Your task to perform on an android device: change text size in settings app Image 0: 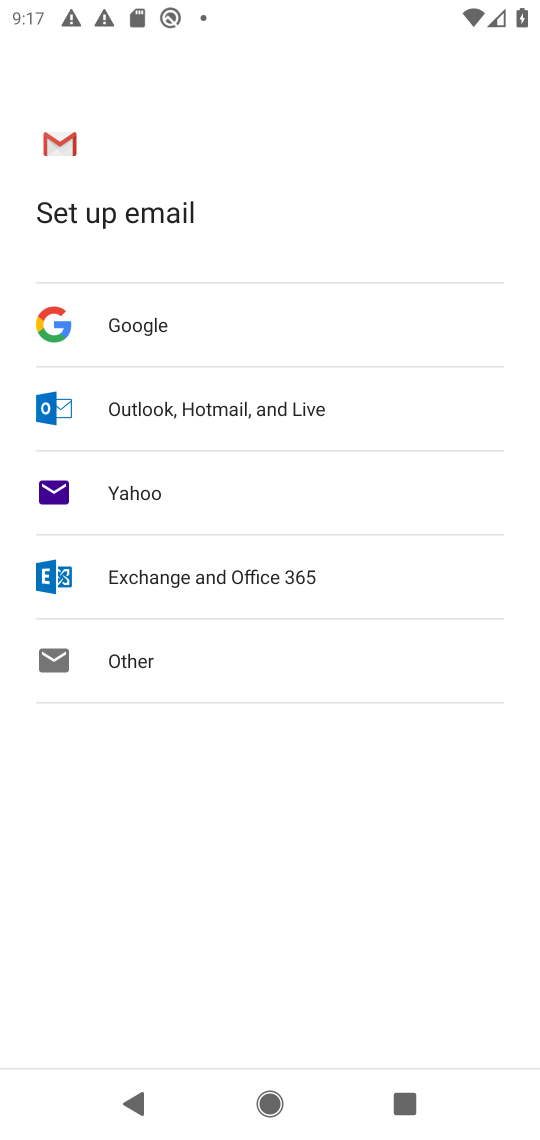
Step 0: press back button
Your task to perform on an android device: change text size in settings app Image 1: 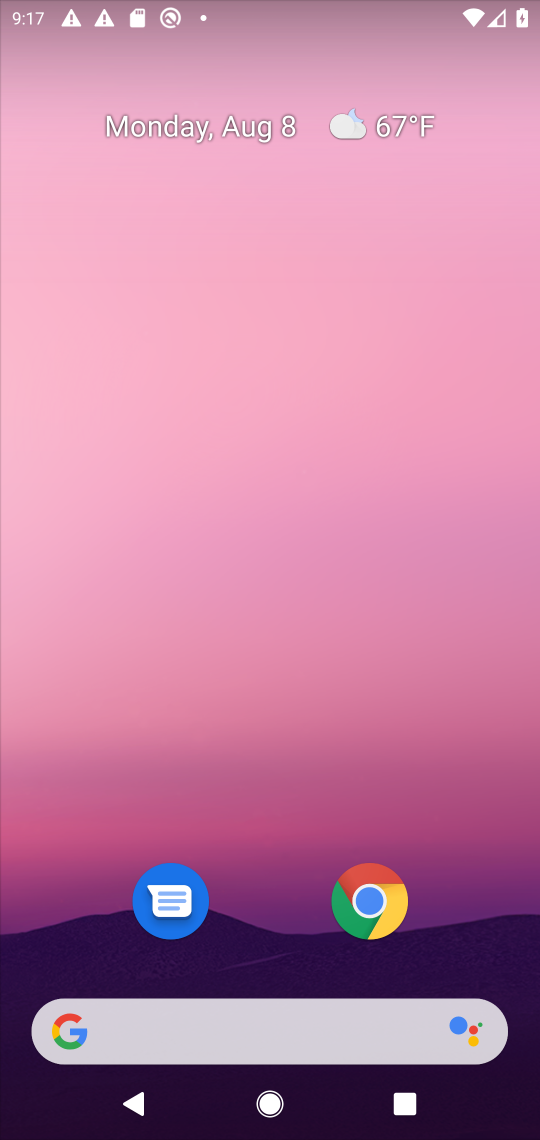
Step 1: drag from (263, 728) to (282, 98)
Your task to perform on an android device: change text size in settings app Image 2: 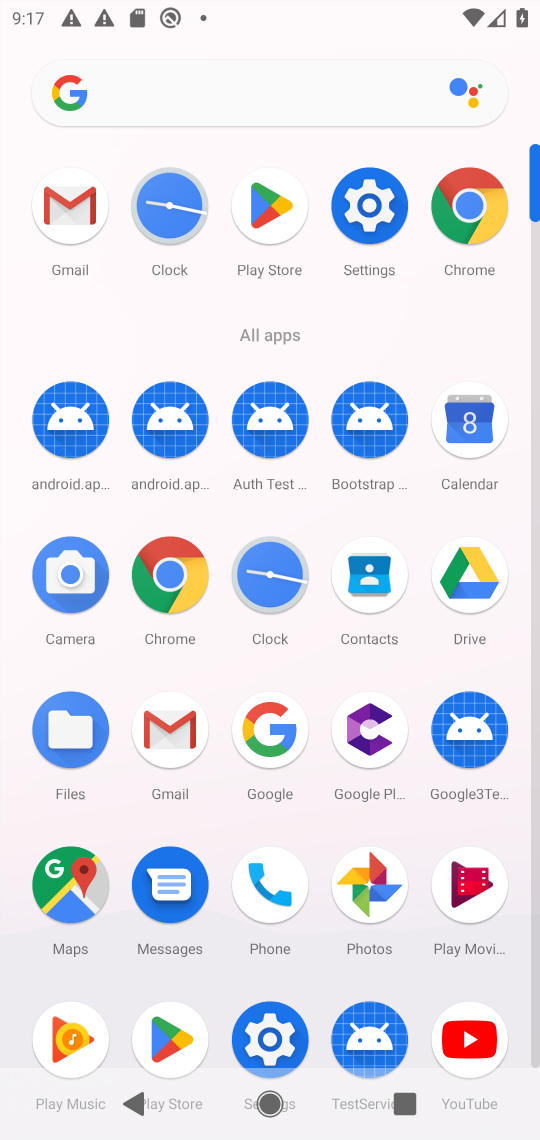
Step 2: click (251, 1023)
Your task to perform on an android device: change text size in settings app Image 3: 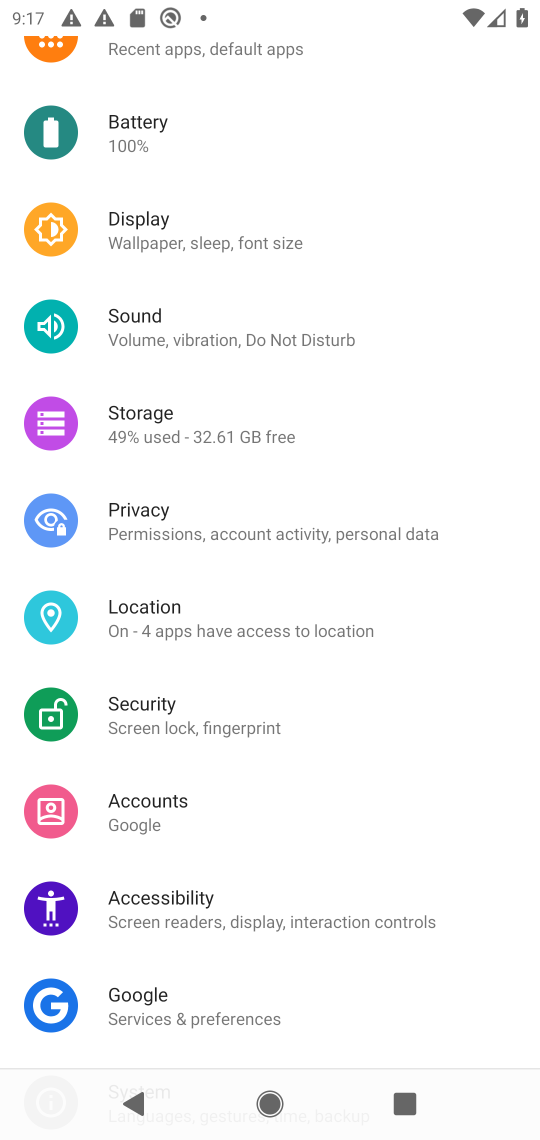
Step 3: click (140, 228)
Your task to perform on an android device: change text size in settings app Image 4: 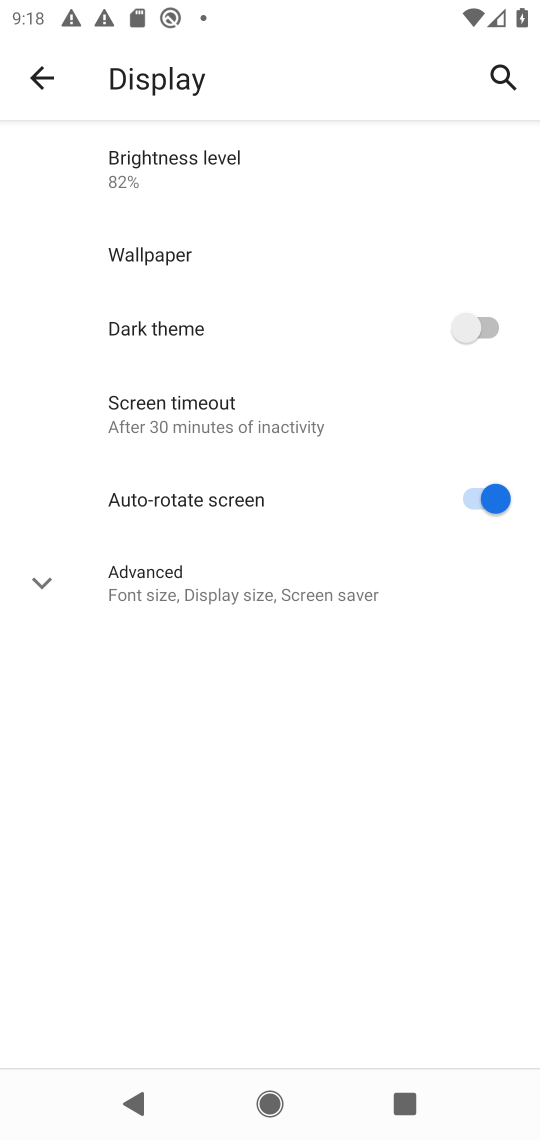
Step 4: click (193, 572)
Your task to perform on an android device: change text size in settings app Image 5: 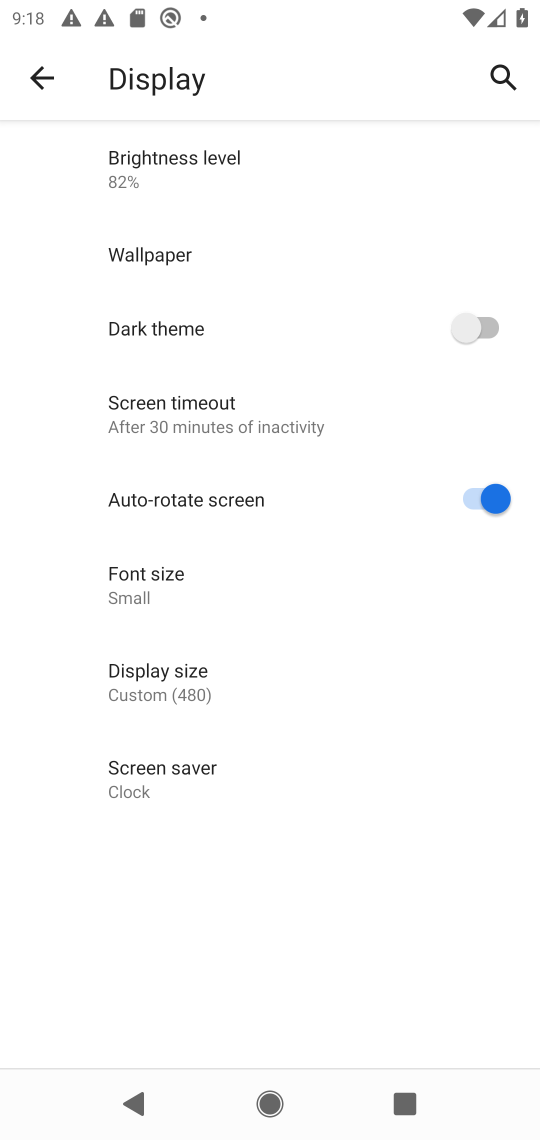
Step 5: click (145, 594)
Your task to perform on an android device: change text size in settings app Image 6: 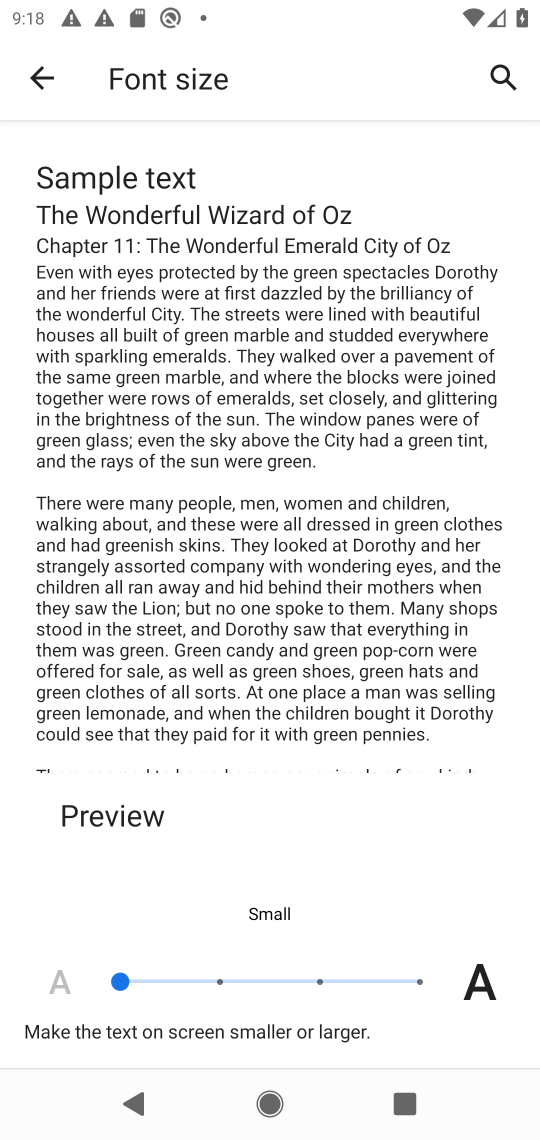
Step 6: click (219, 978)
Your task to perform on an android device: change text size in settings app Image 7: 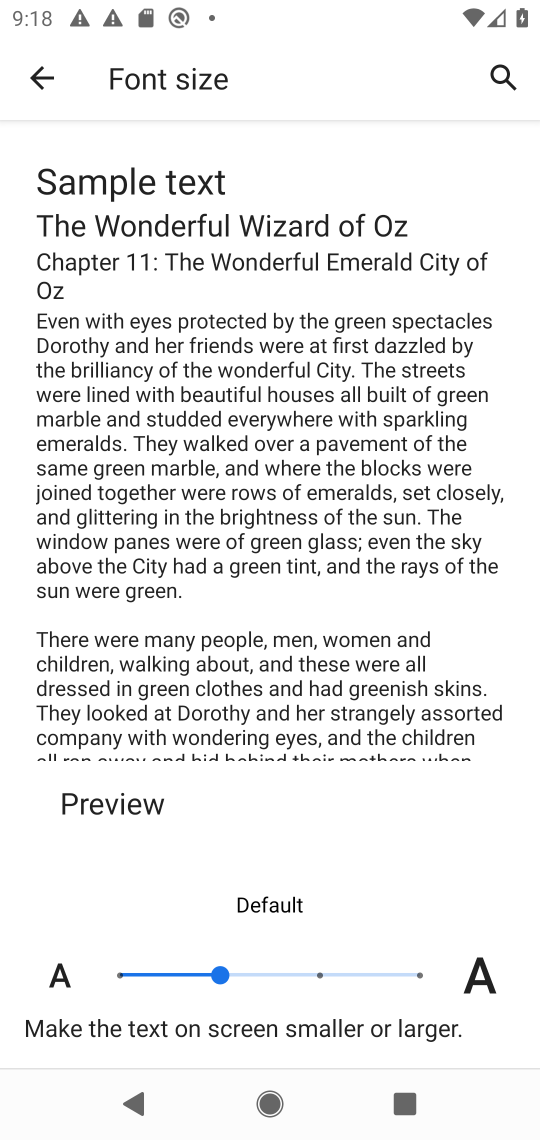
Step 7: task complete